Your task to perform on an android device: toggle improve location accuracy Image 0: 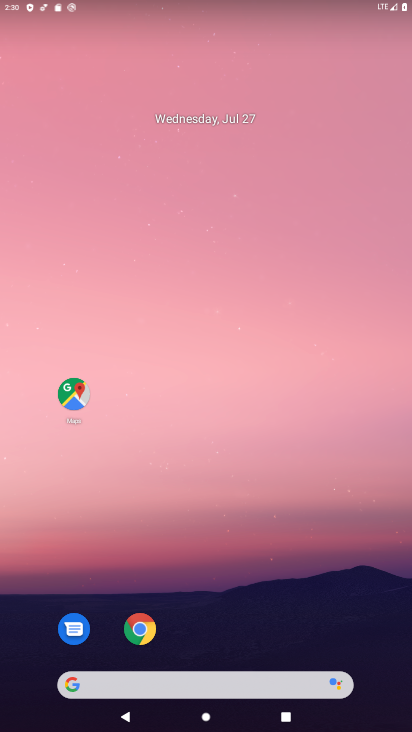
Step 0: drag from (202, 628) to (200, 153)
Your task to perform on an android device: toggle improve location accuracy Image 1: 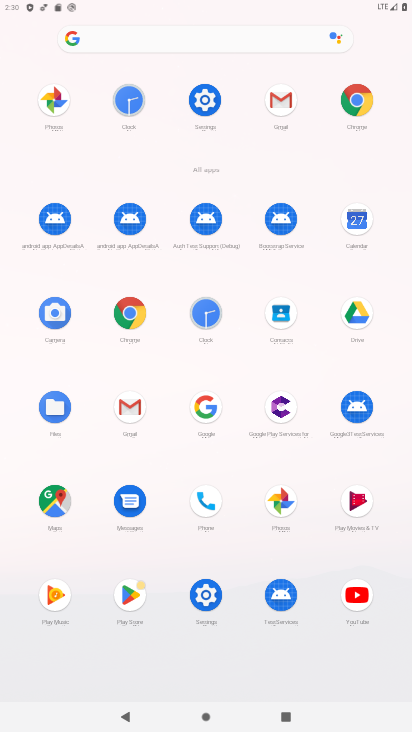
Step 1: click (203, 95)
Your task to perform on an android device: toggle improve location accuracy Image 2: 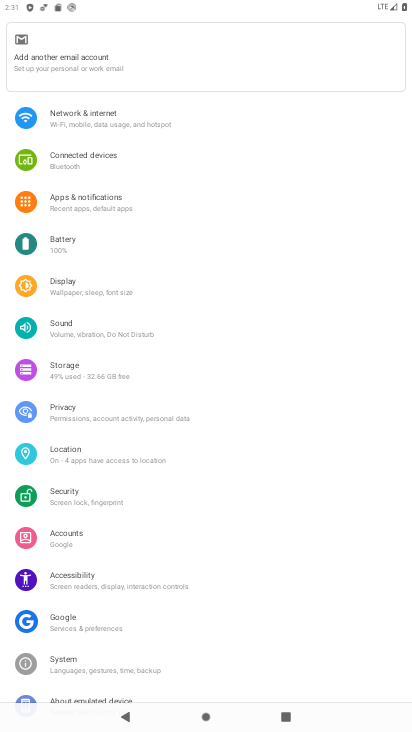
Step 2: click (82, 461)
Your task to perform on an android device: toggle improve location accuracy Image 3: 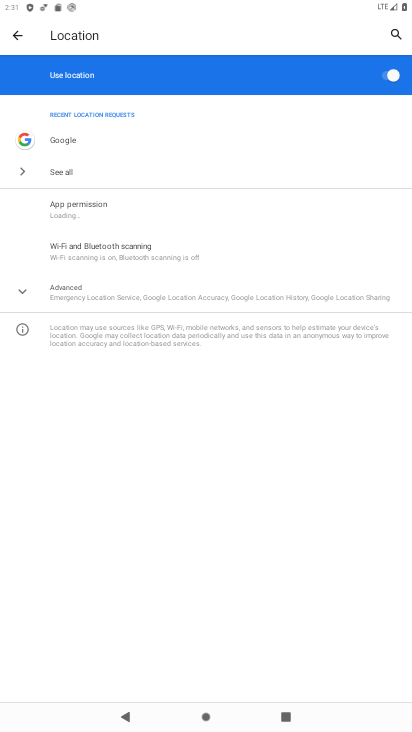
Step 3: click (129, 297)
Your task to perform on an android device: toggle improve location accuracy Image 4: 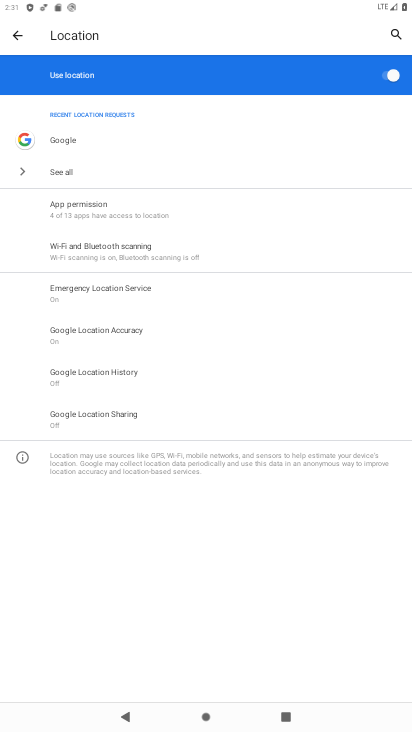
Step 4: click (143, 342)
Your task to perform on an android device: toggle improve location accuracy Image 5: 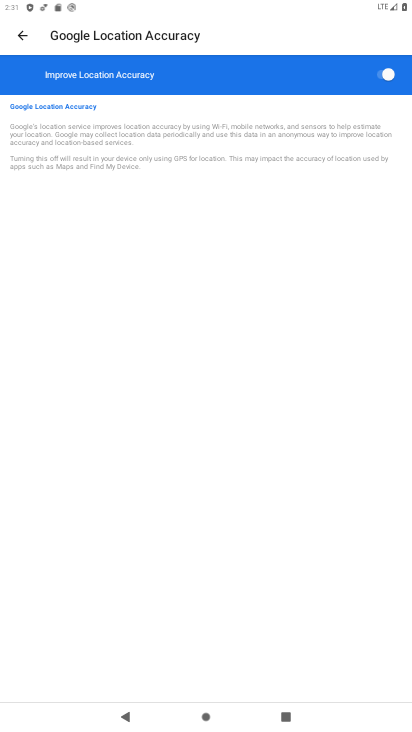
Step 5: click (389, 77)
Your task to perform on an android device: toggle improve location accuracy Image 6: 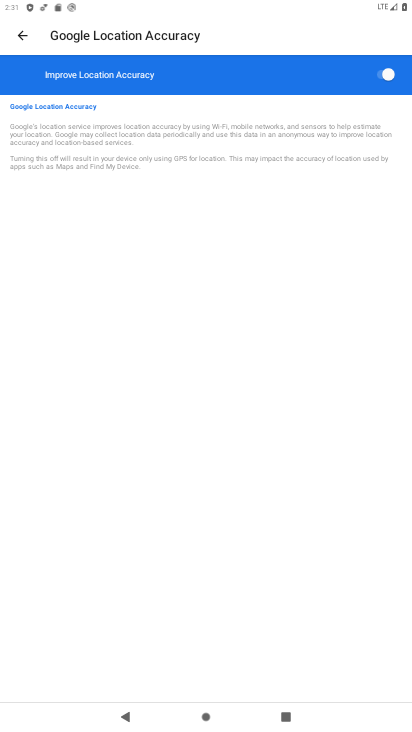
Step 6: click (389, 77)
Your task to perform on an android device: toggle improve location accuracy Image 7: 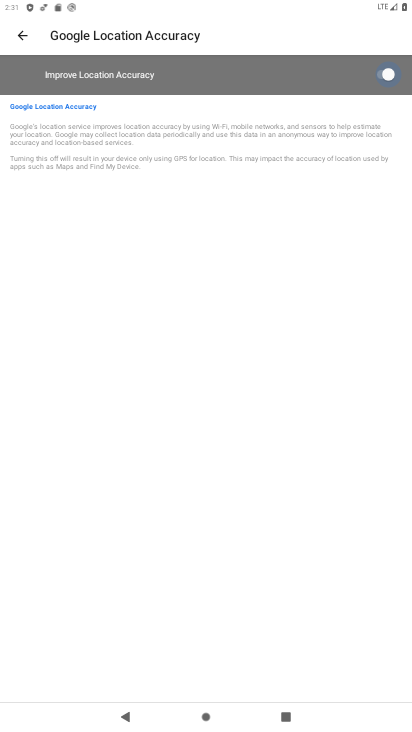
Step 7: click (389, 77)
Your task to perform on an android device: toggle improve location accuracy Image 8: 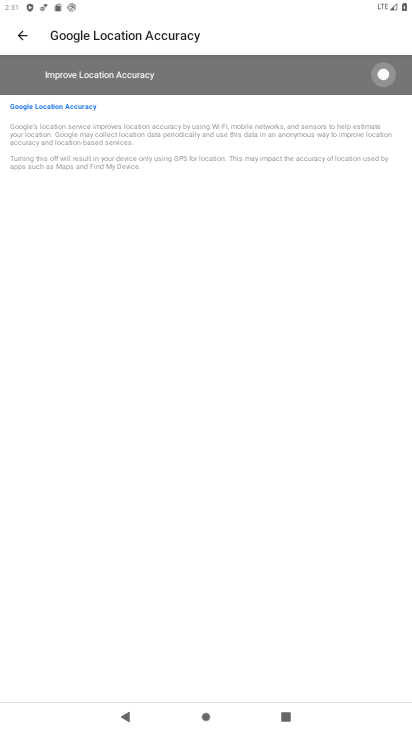
Step 8: click (389, 77)
Your task to perform on an android device: toggle improve location accuracy Image 9: 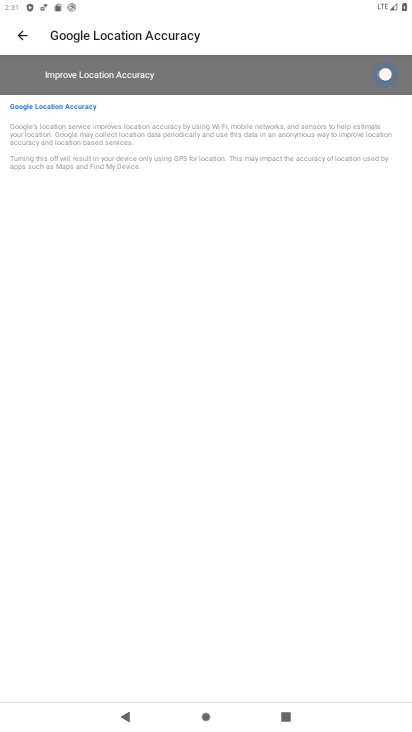
Step 9: click (389, 77)
Your task to perform on an android device: toggle improve location accuracy Image 10: 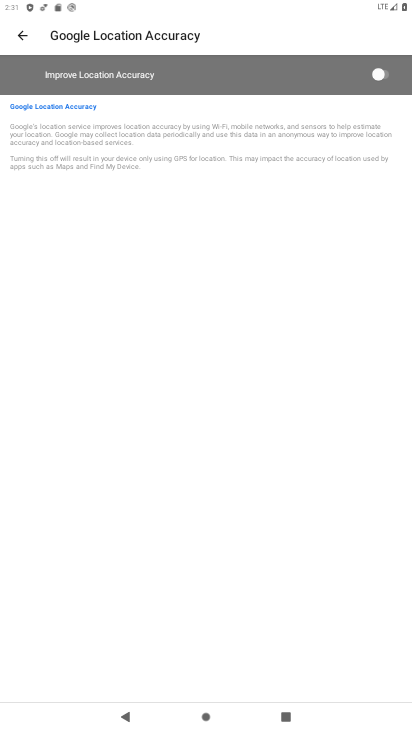
Step 10: click (389, 77)
Your task to perform on an android device: toggle improve location accuracy Image 11: 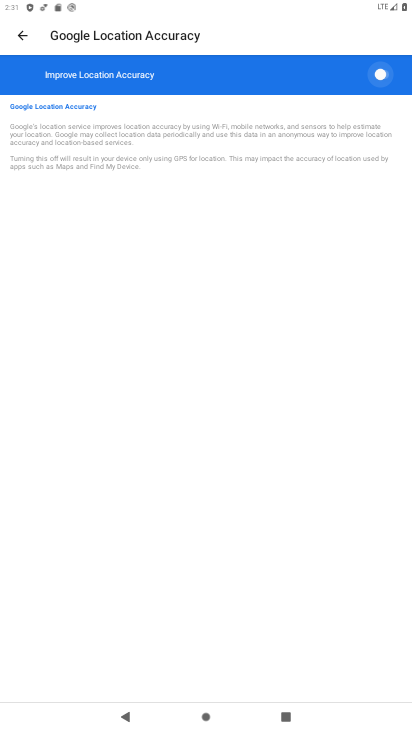
Step 11: click (389, 77)
Your task to perform on an android device: toggle improve location accuracy Image 12: 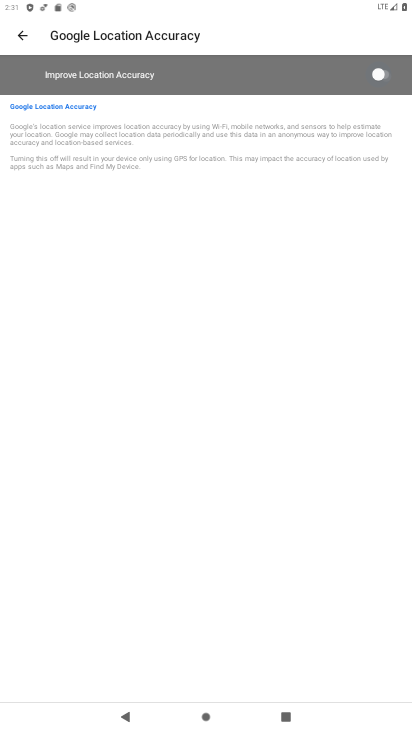
Step 12: click (389, 77)
Your task to perform on an android device: toggle improve location accuracy Image 13: 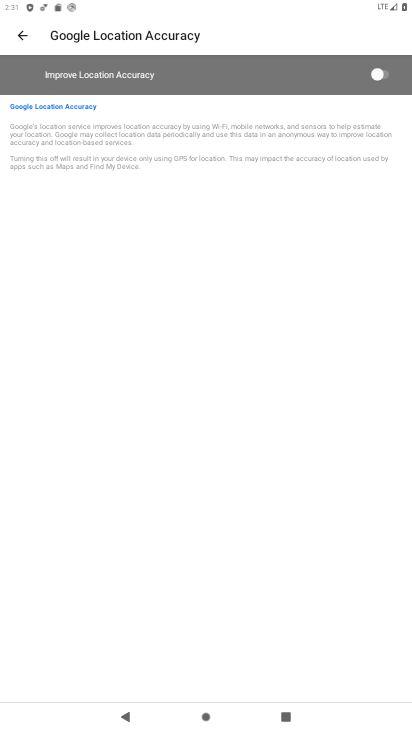
Step 13: task complete